Your task to perform on an android device: check data usage Image 0: 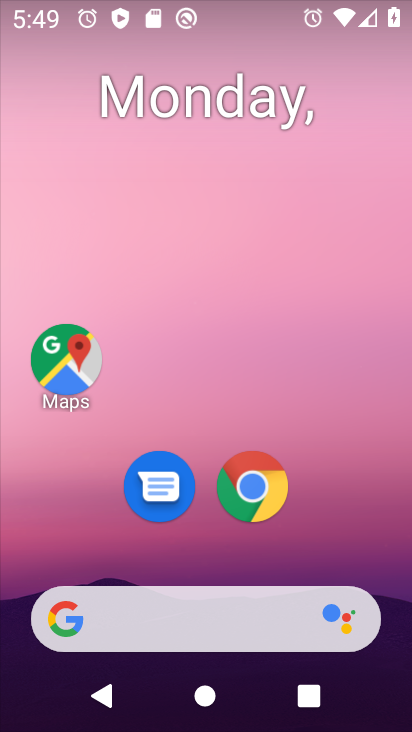
Step 0: press home button
Your task to perform on an android device: check data usage Image 1: 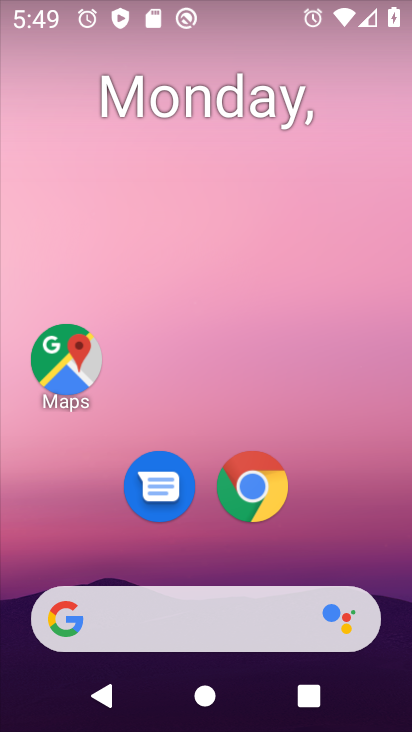
Step 1: drag from (254, 124) to (234, 375)
Your task to perform on an android device: check data usage Image 2: 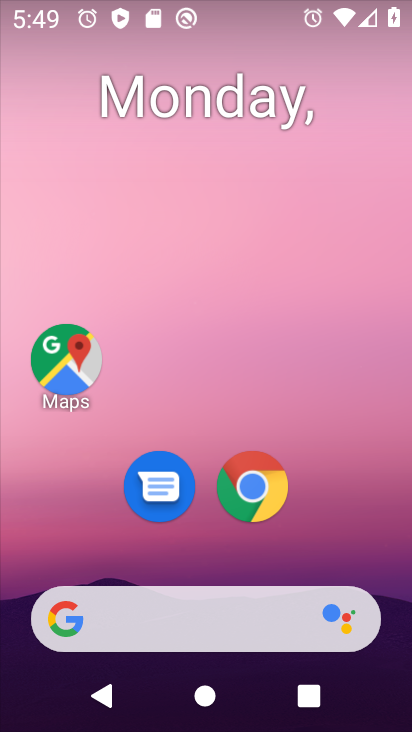
Step 2: drag from (249, 8) to (226, 414)
Your task to perform on an android device: check data usage Image 3: 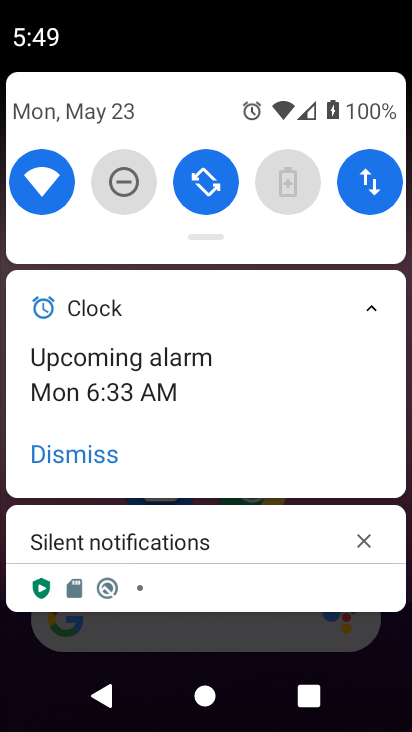
Step 3: click (364, 166)
Your task to perform on an android device: check data usage Image 4: 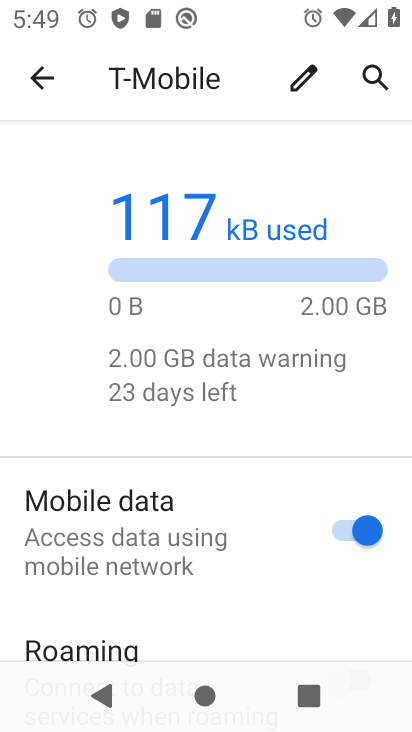
Step 4: task complete